Your task to perform on an android device: open a new tab in the chrome app Image 0: 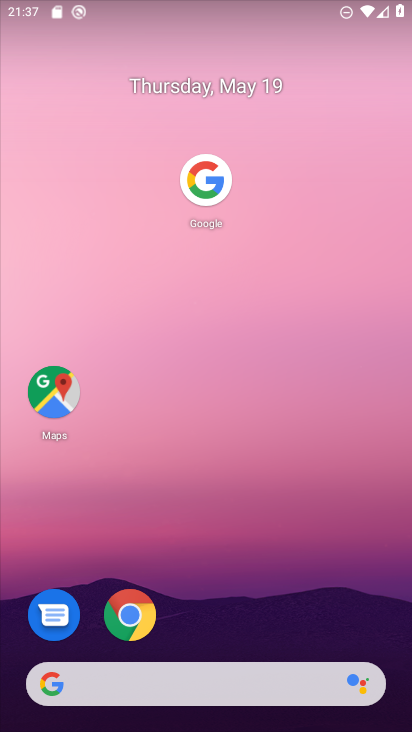
Step 0: click (132, 616)
Your task to perform on an android device: open a new tab in the chrome app Image 1: 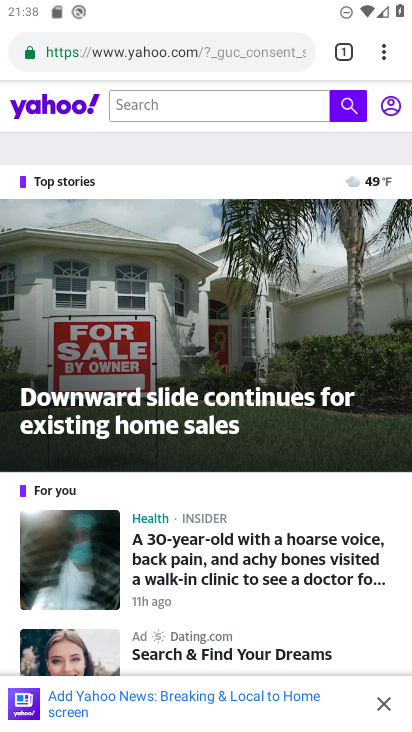
Step 1: click (349, 46)
Your task to perform on an android device: open a new tab in the chrome app Image 2: 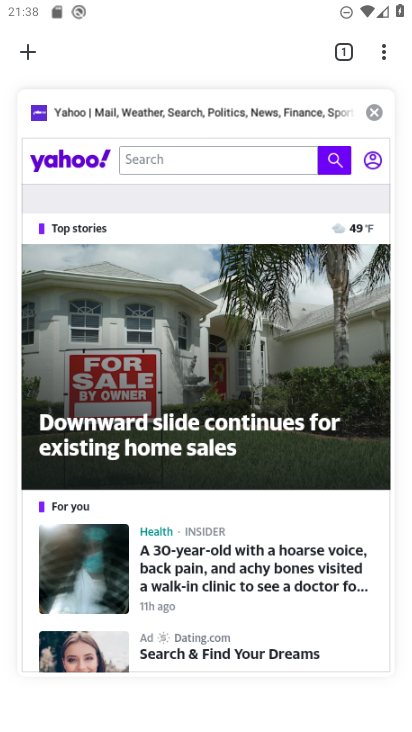
Step 2: click (31, 51)
Your task to perform on an android device: open a new tab in the chrome app Image 3: 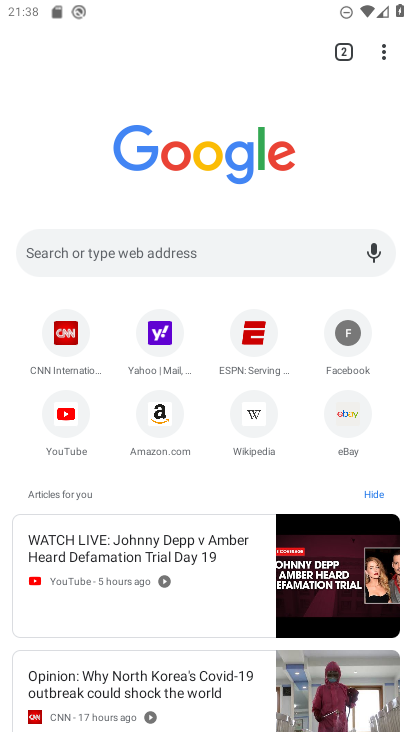
Step 3: task complete